Your task to perform on an android device: Show me recent news Image 0: 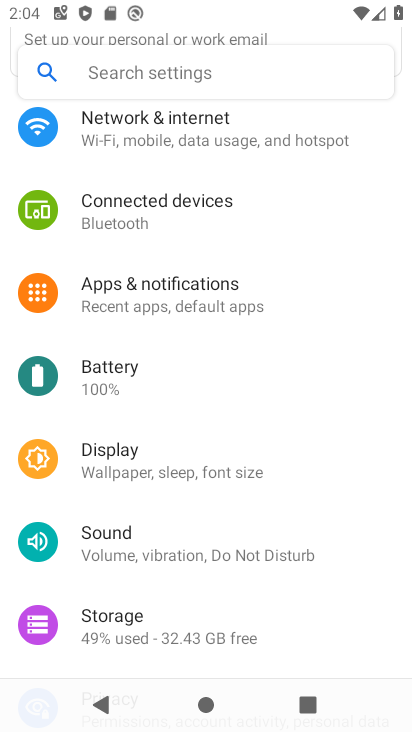
Step 0: press home button
Your task to perform on an android device: Show me recent news Image 1: 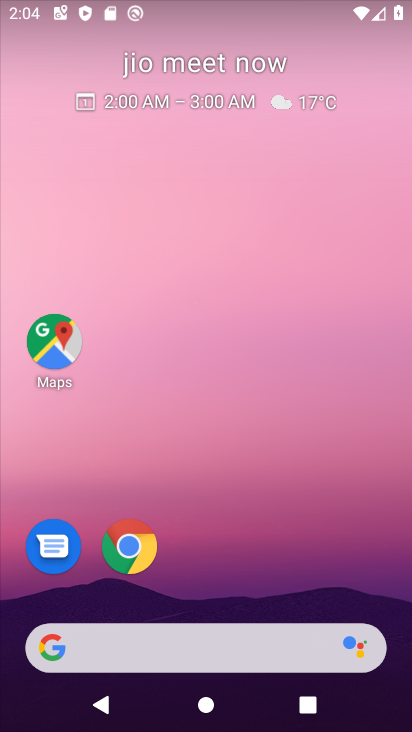
Step 1: drag from (269, 607) to (239, 99)
Your task to perform on an android device: Show me recent news Image 2: 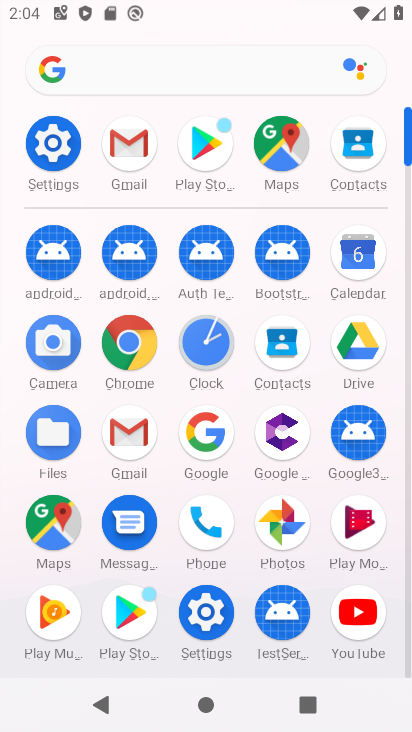
Step 2: click (211, 73)
Your task to perform on an android device: Show me recent news Image 3: 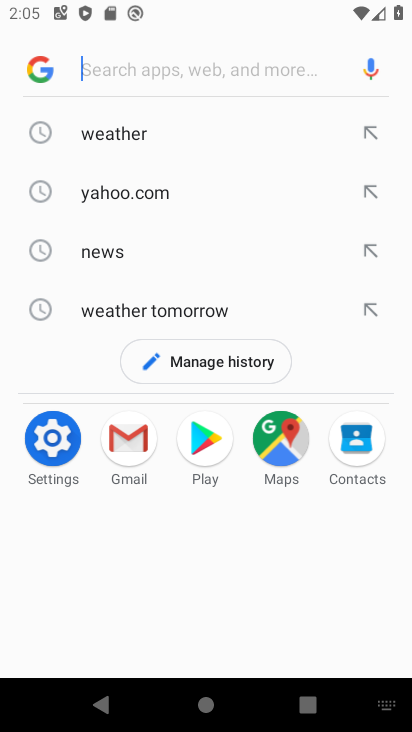
Step 3: click (139, 255)
Your task to perform on an android device: Show me recent news Image 4: 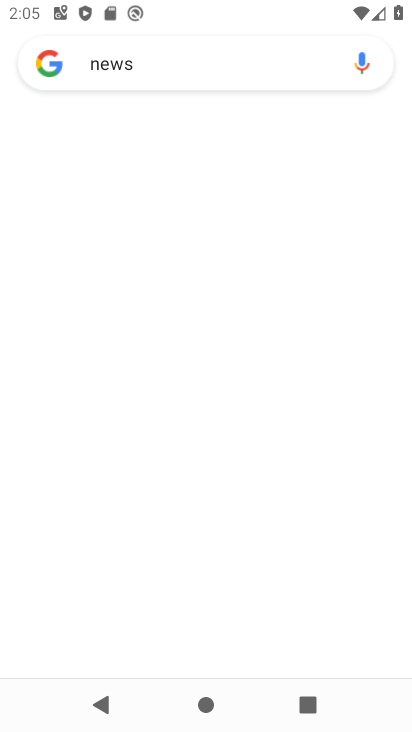
Step 4: task complete